Your task to perform on an android device: Is it going to rain tomorrow? Image 0: 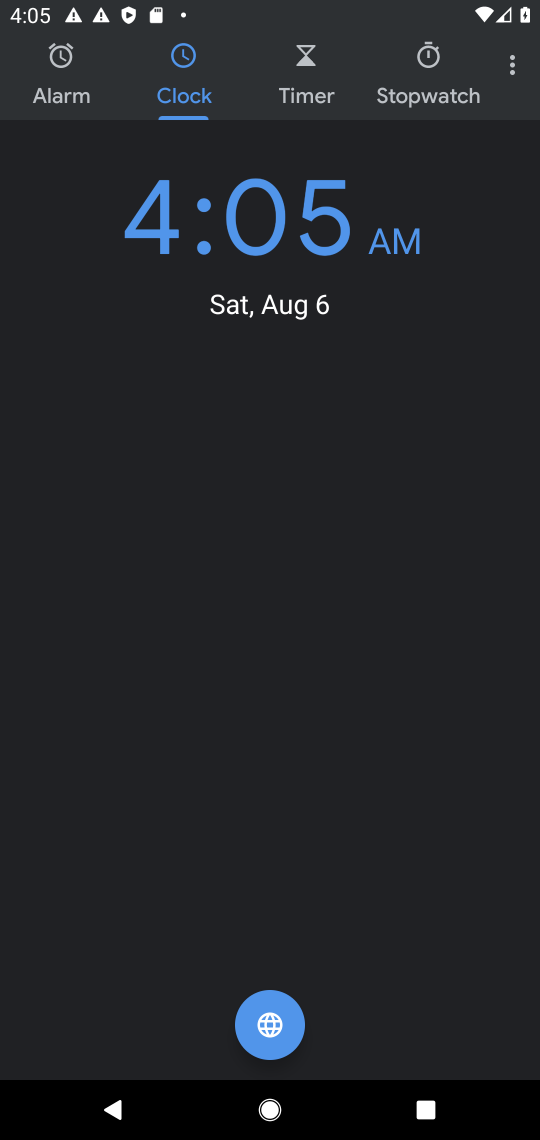
Step 0: press home button
Your task to perform on an android device: Is it going to rain tomorrow? Image 1: 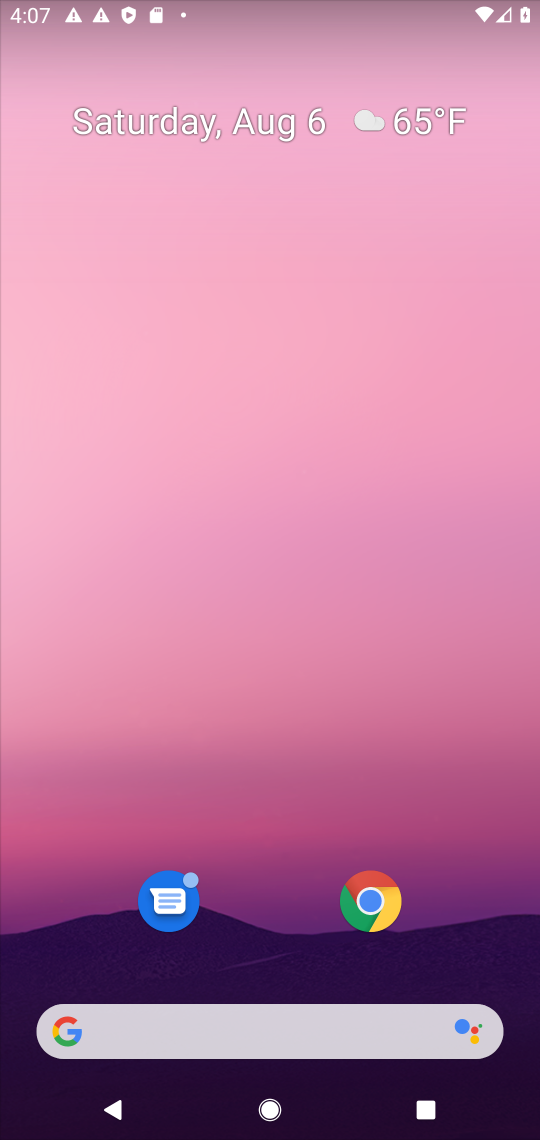
Step 1: drag from (271, 816) to (343, 24)
Your task to perform on an android device: Is it going to rain tomorrow? Image 2: 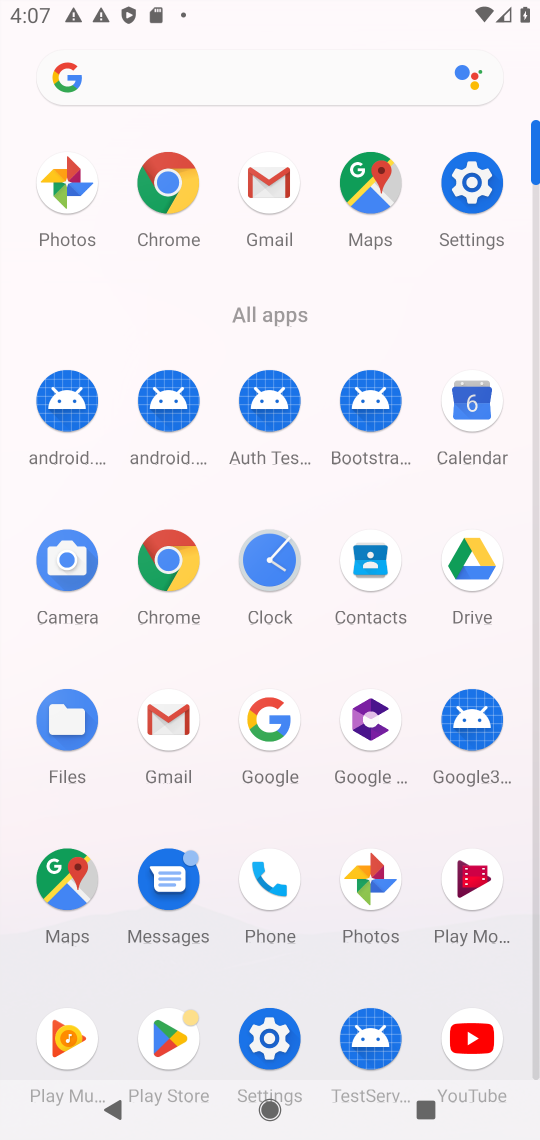
Step 2: click (148, 183)
Your task to perform on an android device: Is it going to rain tomorrow? Image 3: 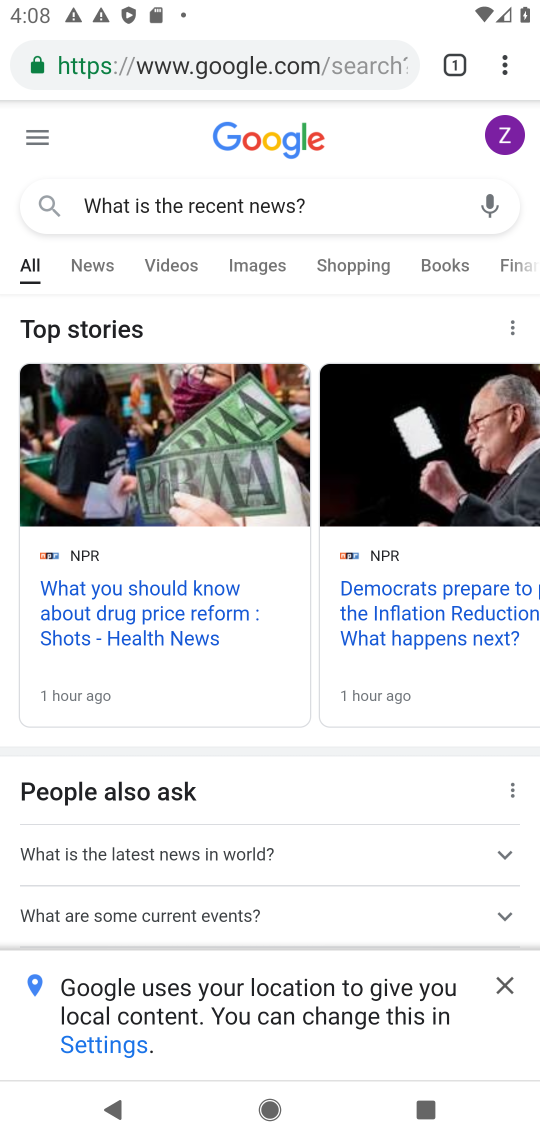
Step 3: click (216, 49)
Your task to perform on an android device: Is it going to rain tomorrow? Image 4: 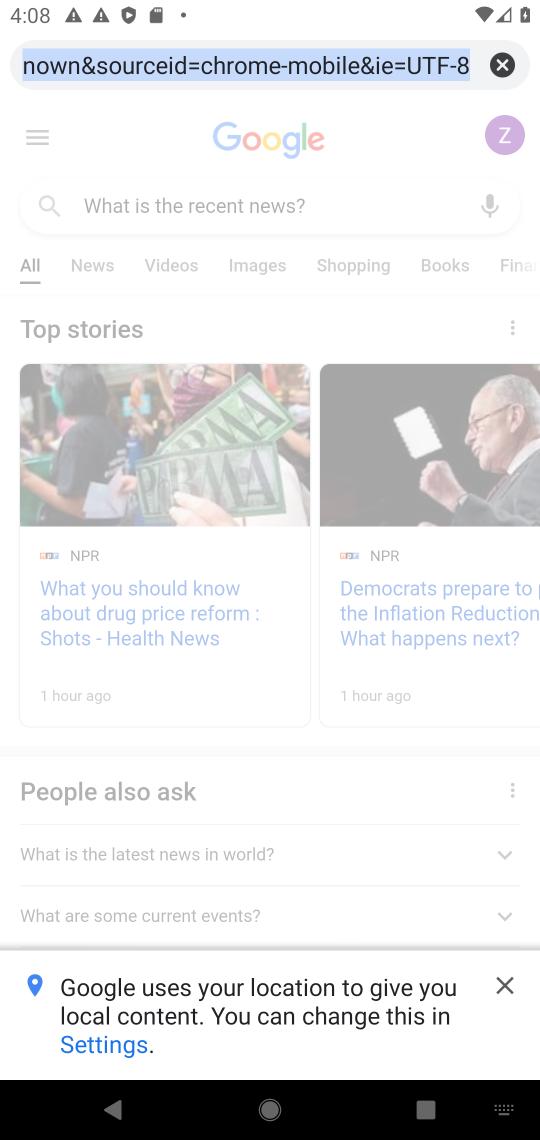
Step 4: type "Is it going to rain tomorrow?"
Your task to perform on an android device: Is it going to rain tomorrow? Image 5: 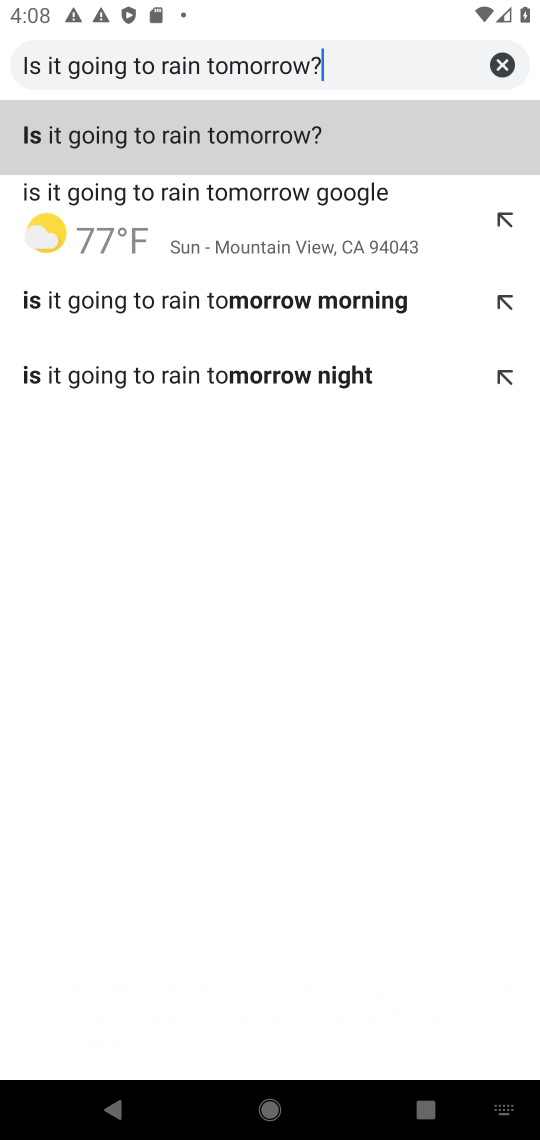
Step 5: click (320, 152)
Your task to perform on an android device: Is it going to rain tomorrow? Image 6: 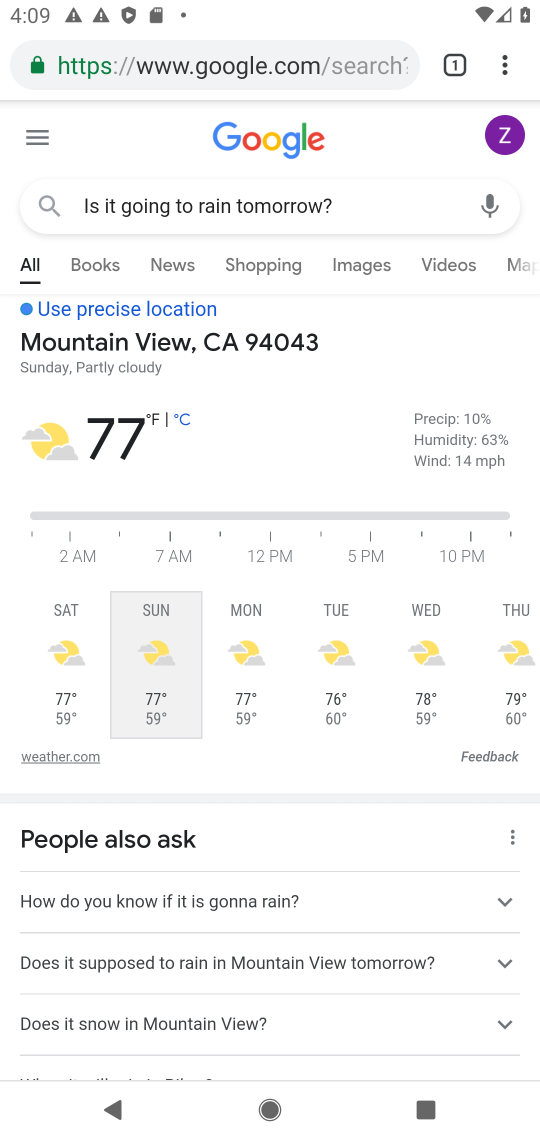
Step 6: task complete